Your task to perform on an android device: What's the weather today? Image 0: 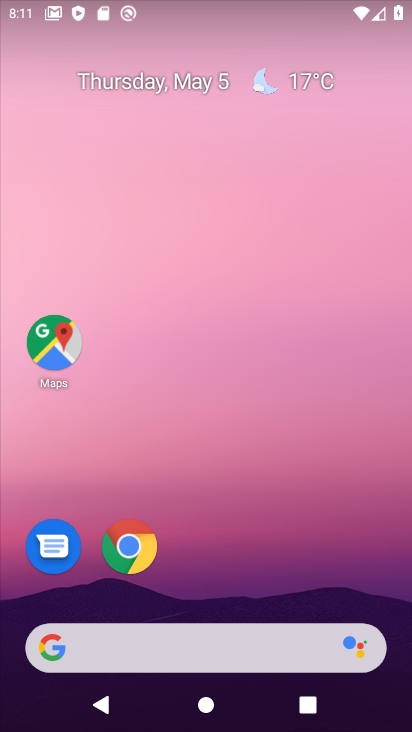
Step 0: click (307, 84)
Your task to perform on an android device: What's the weather today? Image 1: 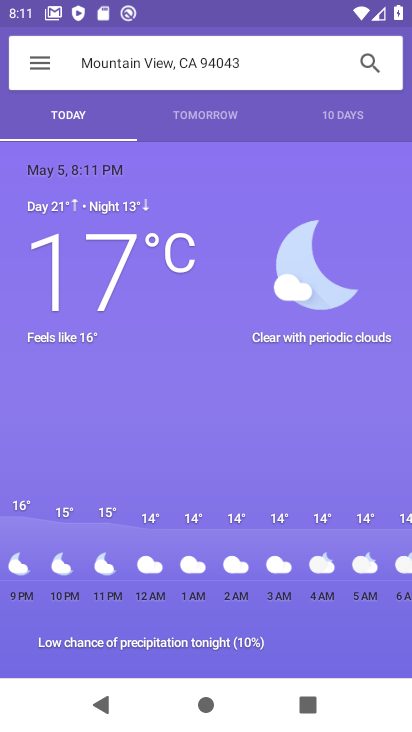
Step 1: task complete